Your task to perform on an android device: turn off priority inbox in the gmail app Image 0: 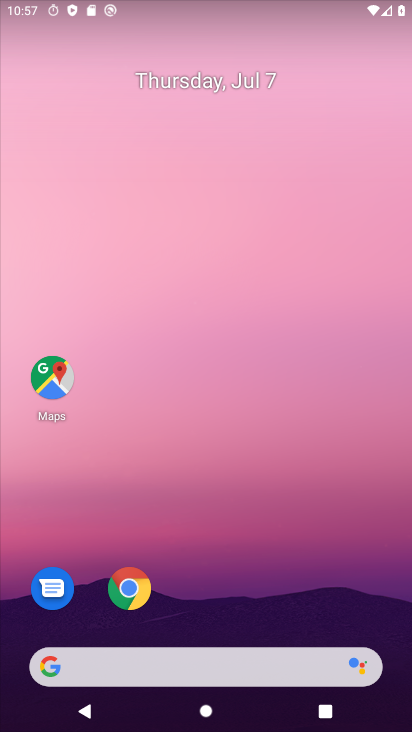
Step 0: drag from (287, 562) to (304, 60)
Your task to perform on an android device: turn off priority inbox in the gmail app Image 1: 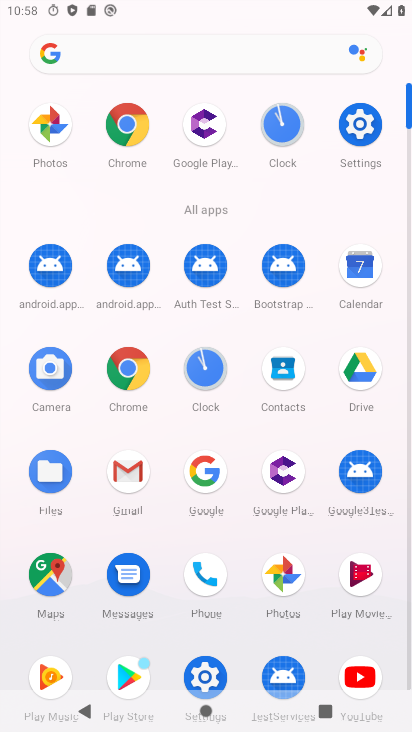
Step 1: click (126, 470)
Your task to perform on an android device: turn off priority inbox in the gmail app Image 2: 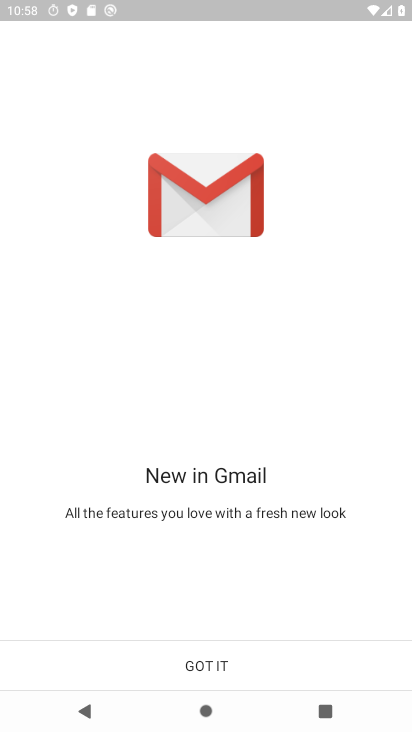
Step 2: click (221, 665)
Your task to perform on an android device: turn off priority inbox in the gmail app Image 3: 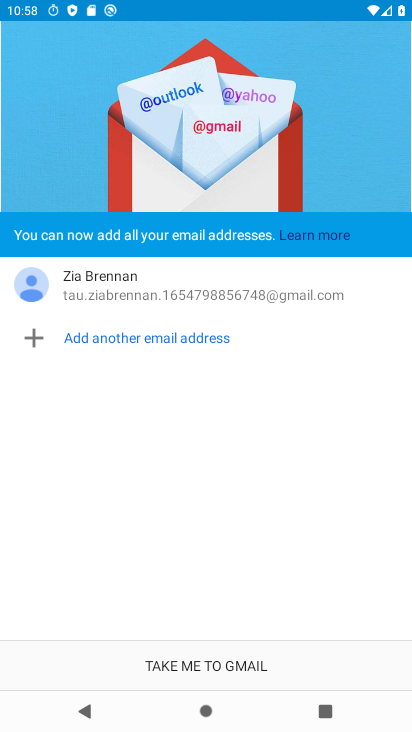
Step 3: click (222, 664)
Your task to perform on an android device: turn off priority inbox in the gmail app Image 4: 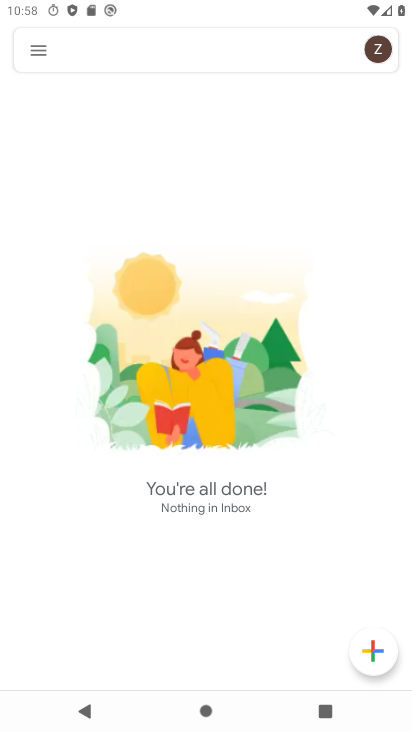
Step 4: click (42, 43)
Your task to perform on an android device: turn off priority inbox in the gmail app Image 5: 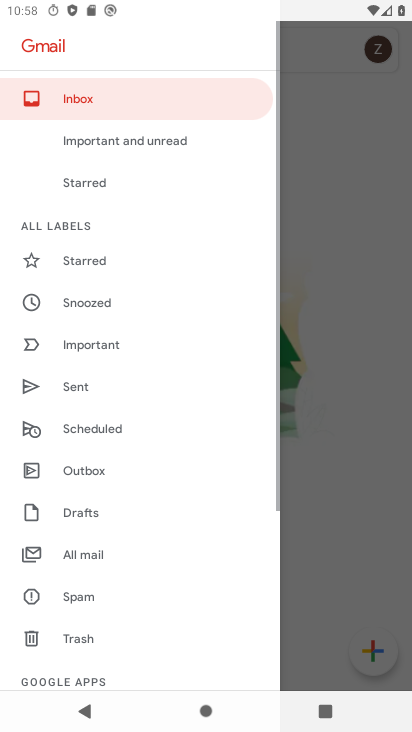
Step 5: drag from (108, 612) to (168, 102)
Your task to perform on an android device: turn off priority inbox in the gmail app Image 6: 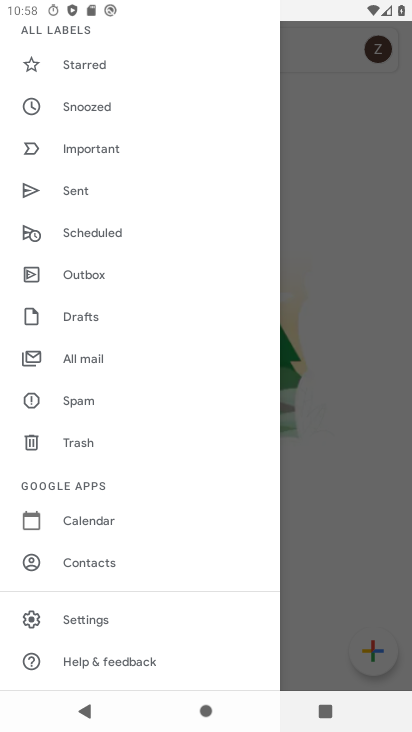
Step 6: click (106, 612)
Your task to perform on an android device: turn off priority inbox in the gmail app Image 7: 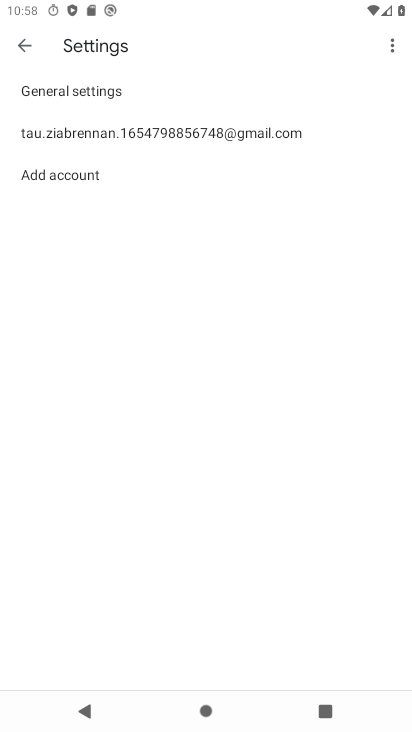
Step 7: click (195, 130)
Your task to perform on an android device: turn off priority inbox in the gmail app Image 8: 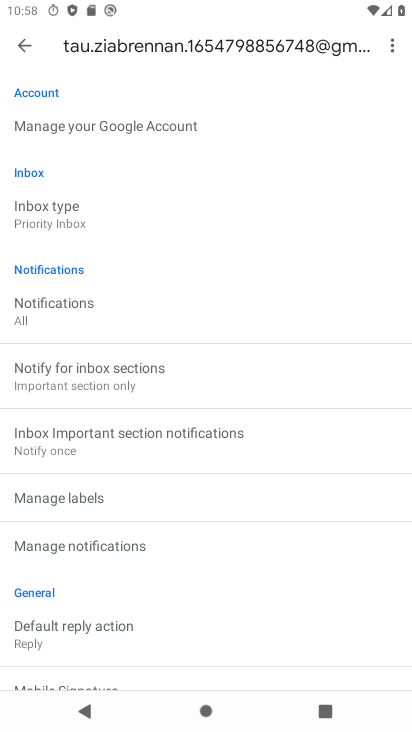
Step 8: click (69, 210)
Your task to perform on an android device: turn off priority inbox in the gmail app Image 9: 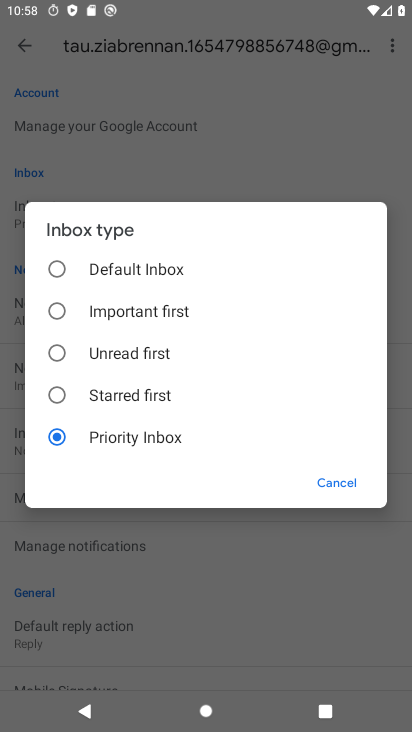
Step 9: task complete